Your task to perform on an android device: set the stopwatch Image 0: 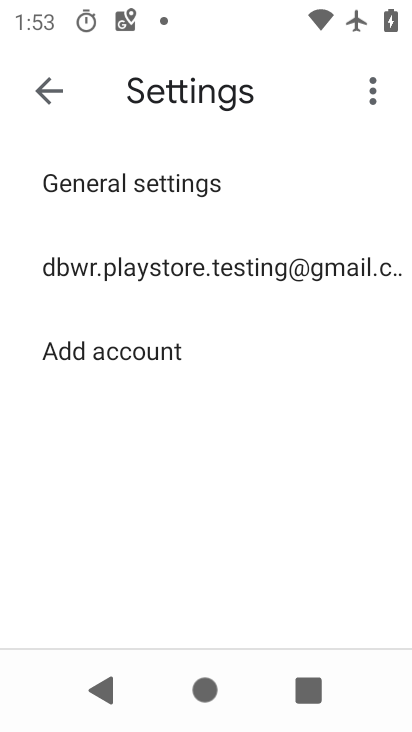
Step 0: press back button
Your task to perform on an android device: set the stopwatch Image 1: 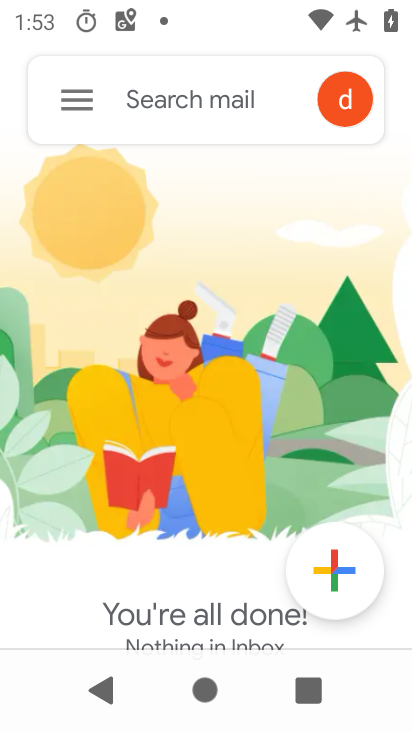
Step 1: press home button
Your task to perform on an android device: set the stopwatch Image 2: 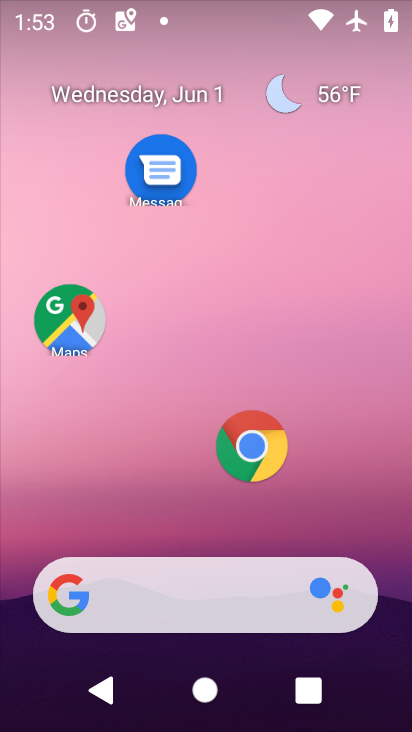
Step 2: drag from (18, 673) to (204, 170)
Your task to perform on an android device: set the stopwatch Image 3: 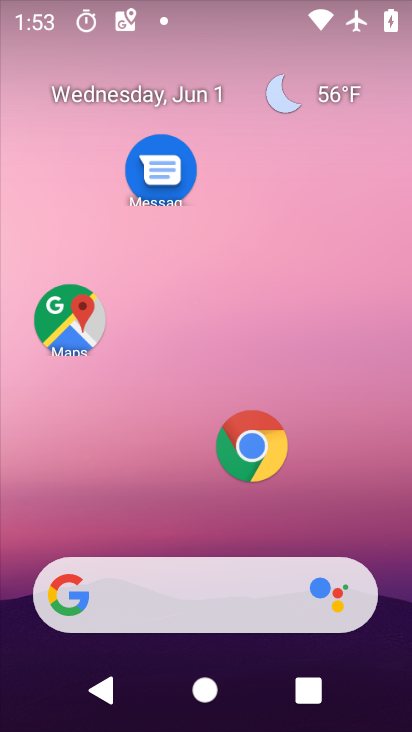
Step 3: drag from (13, 631) to (277, 146)
Your task to perform on an android device: set the stopwatch Image 4: 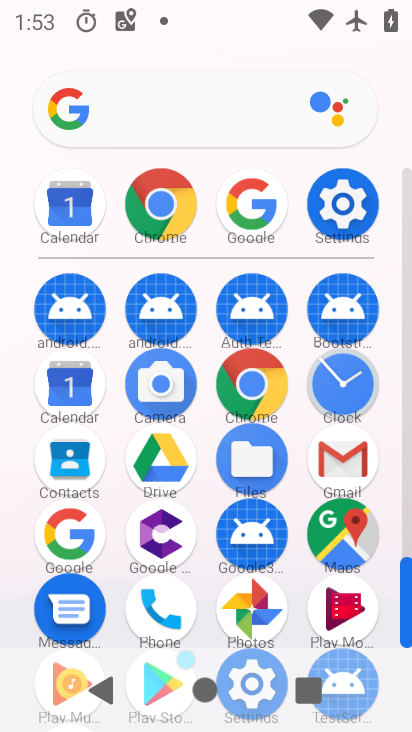
Step 4: click (339, 378)
Your task to perform on an android device: set the stopwatch Image 5: 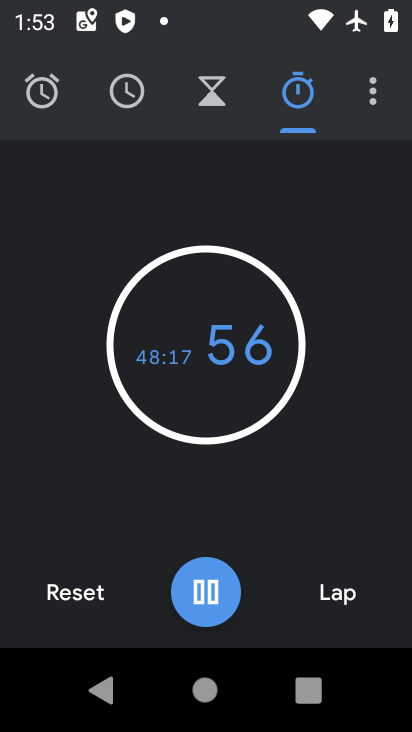
Step 5: click (53, 596)
Your task to perform on an android device: set the stopwatch Image 6: 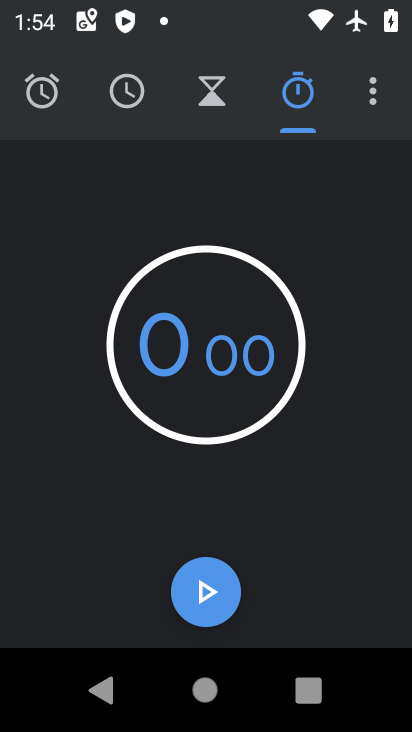
Step 6: click (204, 584)
Your task to perform on an android device: set the stopwatch Image 7: 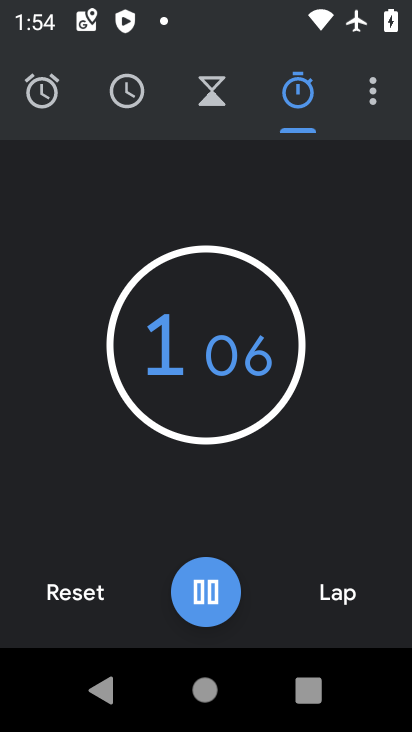
Step 7: task complete